Your task to perform on an android device: add a contact in the contacts app Image 0: 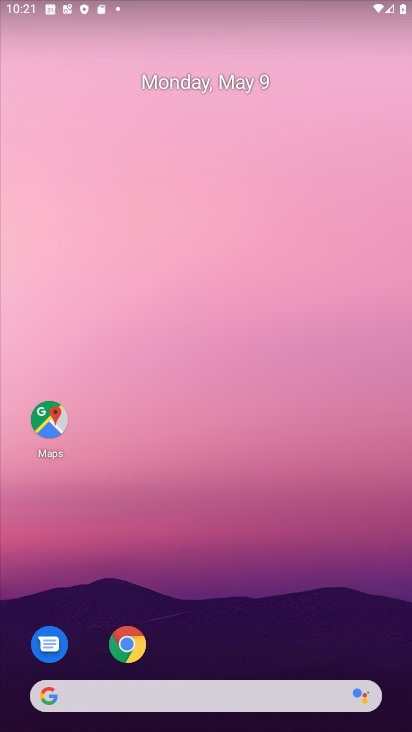
Step 0: drag from (227, 644) to (362, 0)
Your task to perform on an android device: add a contact in the contacts app Image 1: 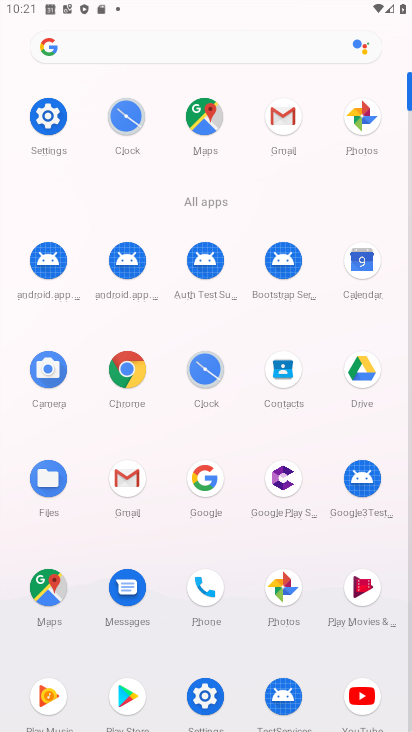
Step 1: click (291, 391)
Your task to perform on an android device: add a contact in the contacts app Image 2: 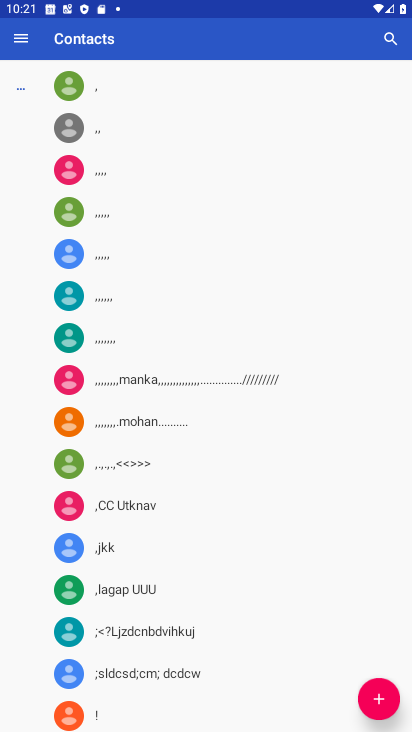
Step 2: click (364, 696)
Your task to perform on an android device: add a contact in the contacts app Image 3: 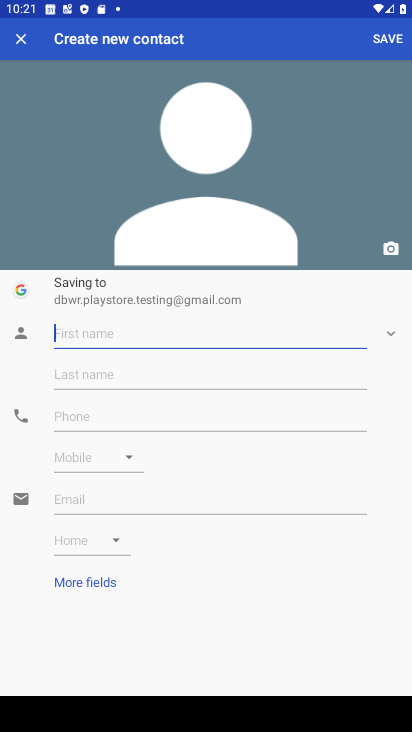
Step 3: type "wreck"
Your task to perform on an android device: add a contact in the contacts app Image 4: 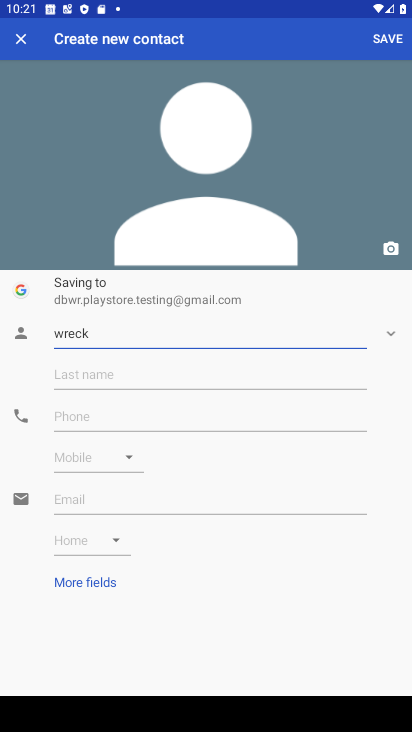
Step 4: click (375, 35)
Your task to perform on an android device: add a contact in the contacts app Image 5: 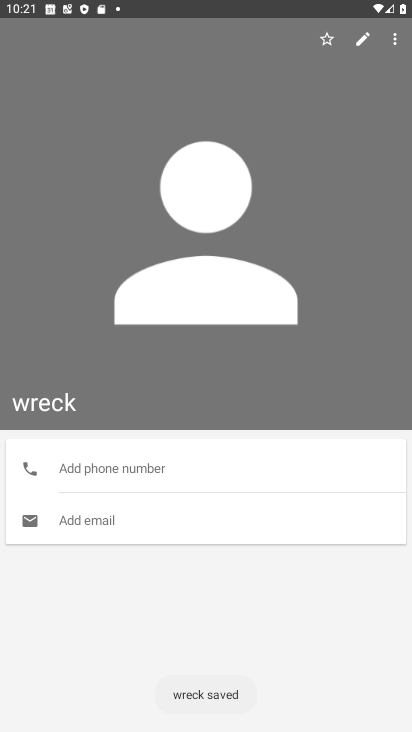
Step 5: task complete